Your task to perform on an android device: Add "macbook pro 15 inch" to the cart on costco Image 0: 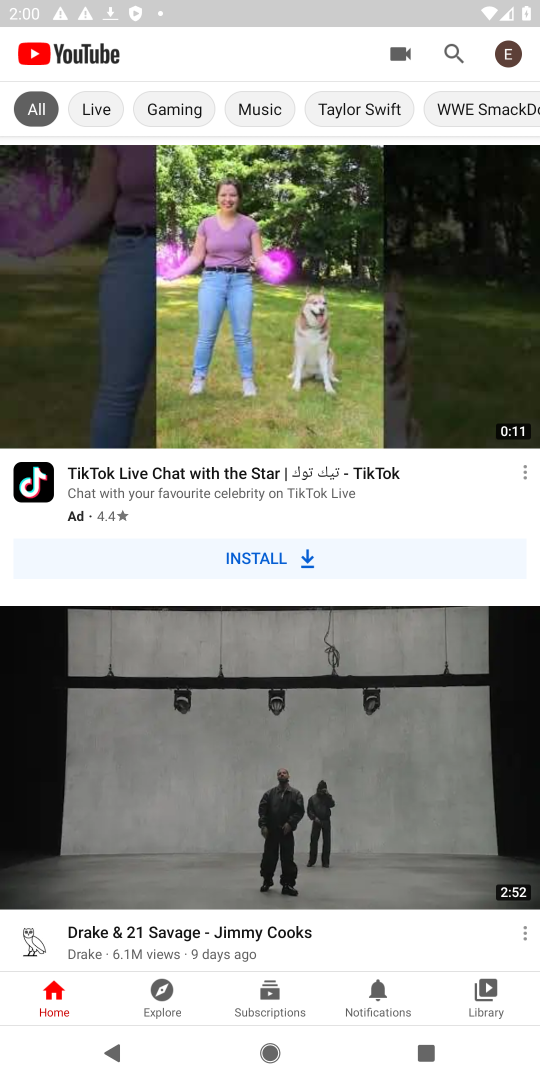
Step 0: press home button
Your task to perform on an android device: Add "macbook pro 15 inch" to the cart on costco Image 1: 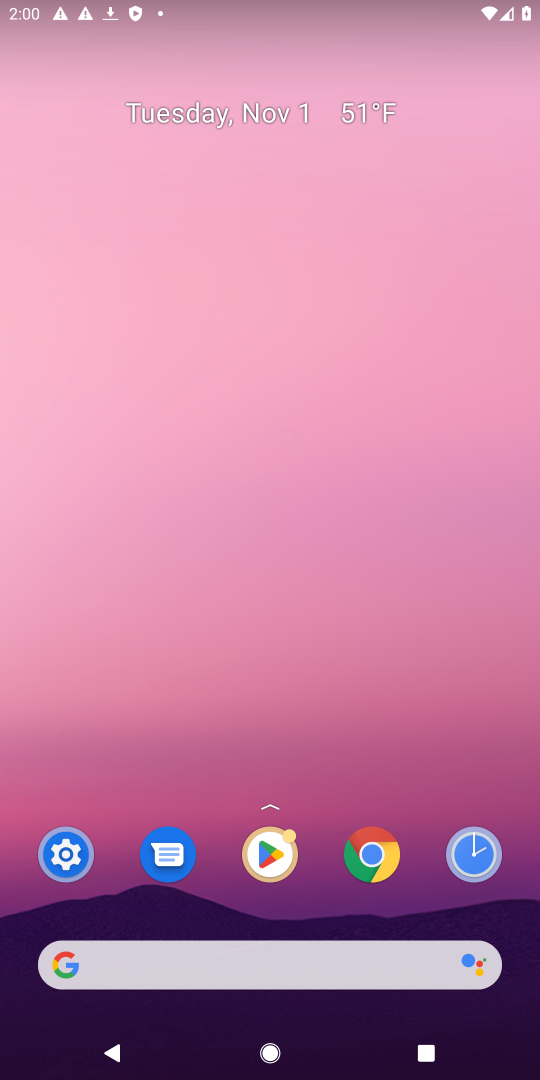
Step 1: click (253, 960)
Your task to perform on an android device: Add "macbook pro 15 inch" to the cart on costco Image 2: 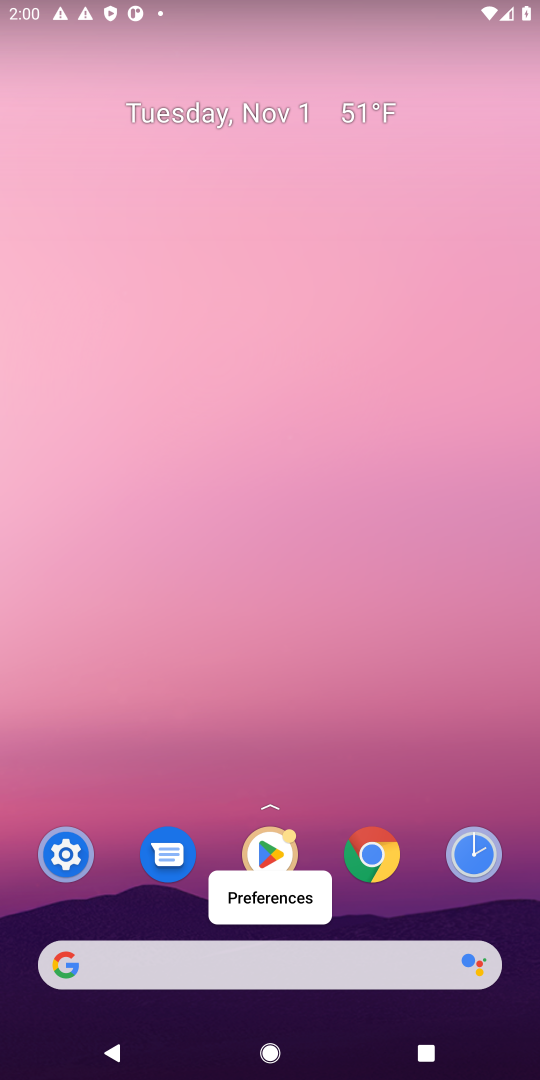
Step 2: click (158, 967)
Your task to perform on an android device: Add "macbook pro 15 inch" to the cart on costco Image 3: 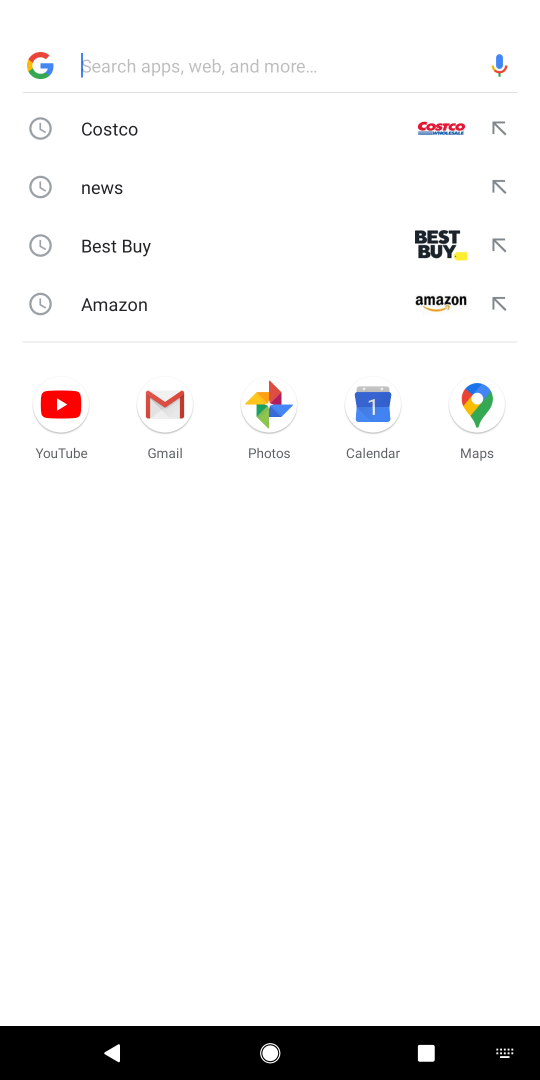
Step 3: click (115, 131)
Your task to perform on an android device: Add "macbook pro 15 inch" to the cart on costco Image 4: 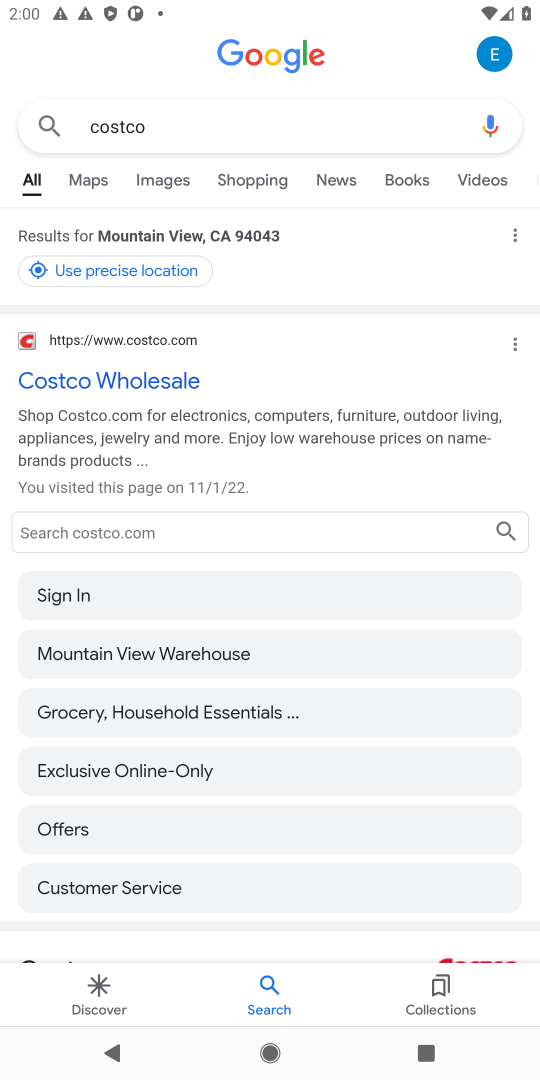
Step 4: click (152, 378)
Your task to perform on an android device: Add "macbook pro 15 inch" to the cart on costco Image 5: 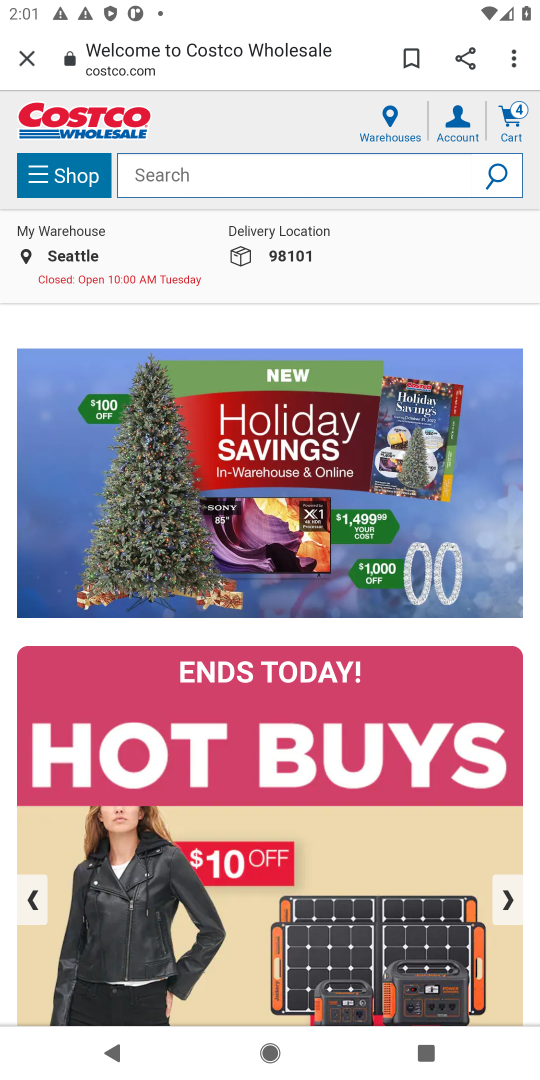
Step 5: click (205, 166)
Your task to perform on an android device: Add "macbook pro 15 inch" to the cart on costco Image 6: 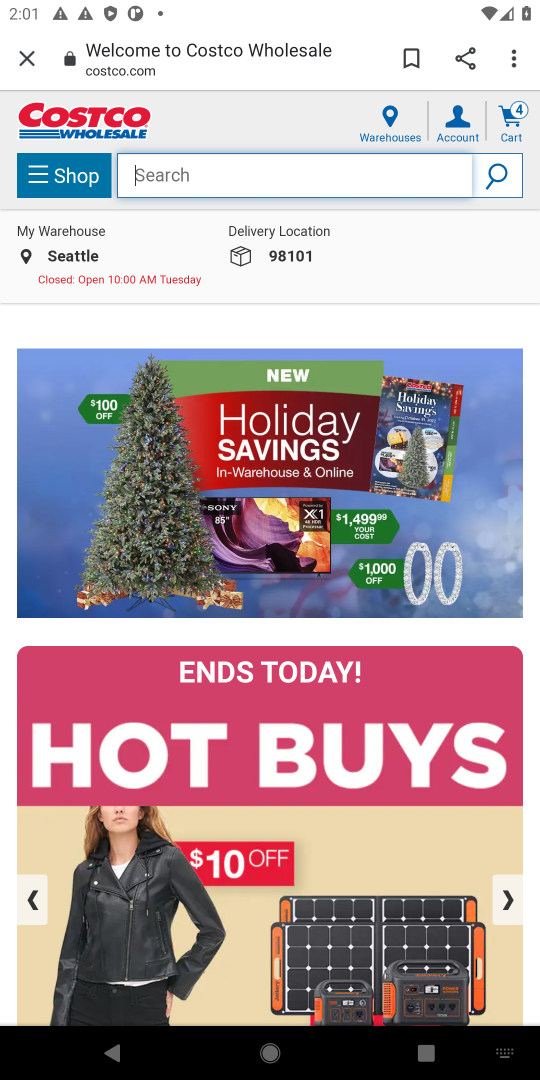
Step 6: type "macbook pro 15 inch"
Your task to perform on an android device: Add "macbook pro 15 inch" to the cart on costco Image 7: 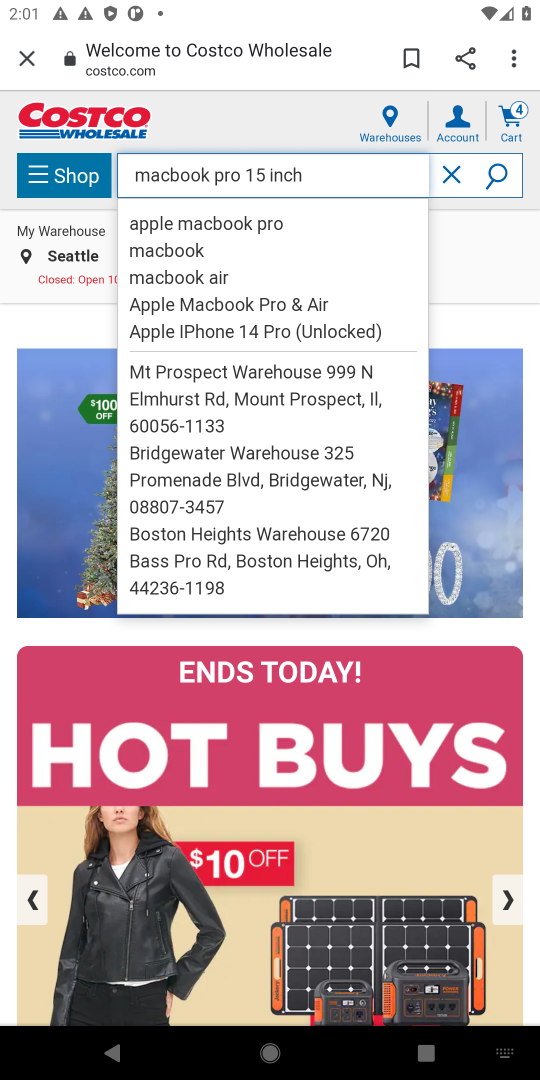
Step 7: click (493, 175)
Your task to perform on an android device: Add "macbook pro 15 inch" to the cart on costco Image 8: 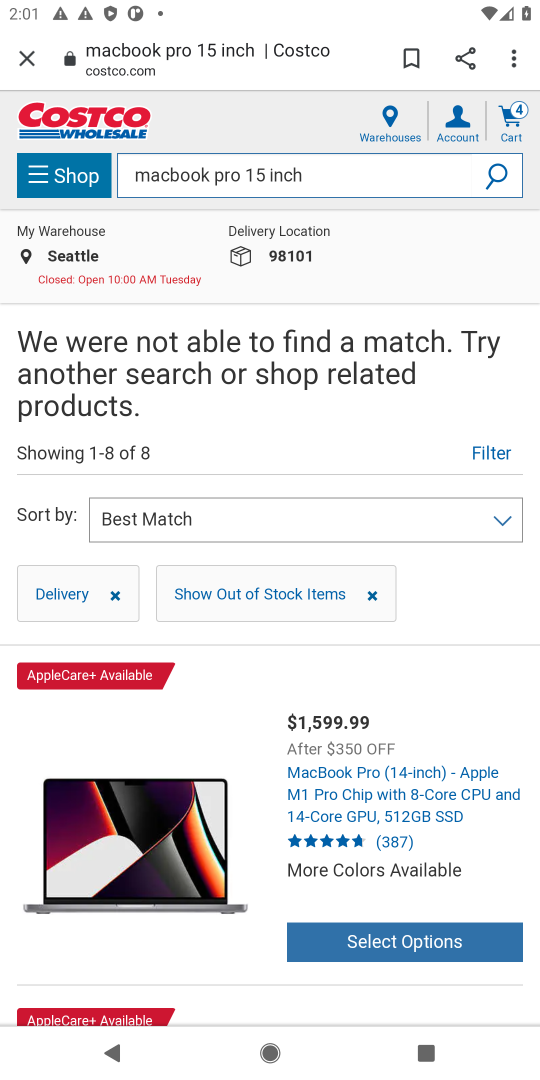
Step 8: click (349, 769)
Your task to perform on an android device: Add "macbook pro 15 inch" to the cart on costco Image 9: 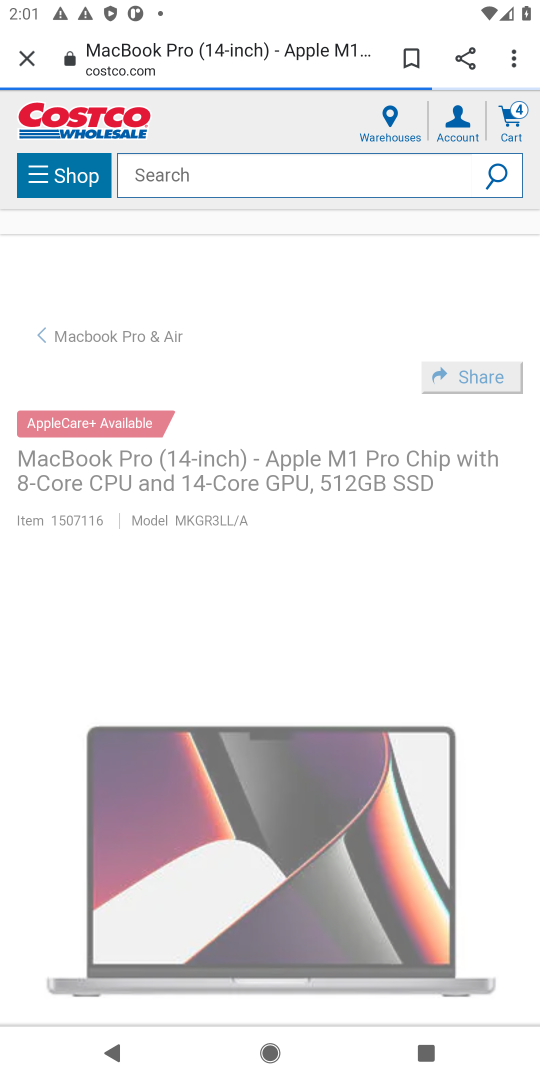
Step 9: drag from (229, 541) to (229, 255)
Your task to perform on an android device: Add "macbook pro 15 inch" to the cart on costco Image 10: 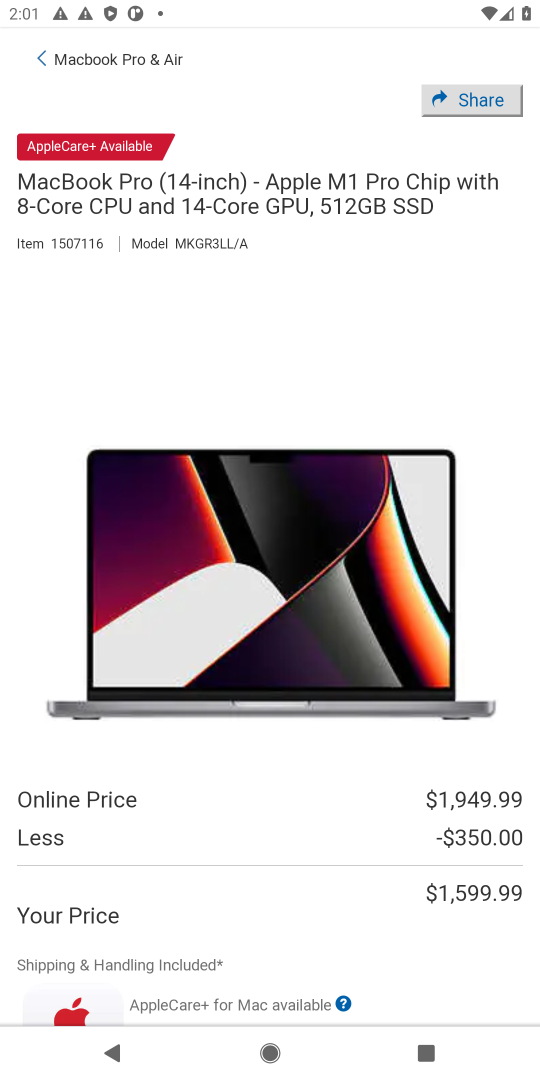
Step 10: drag from (258, 807) to (262, 332)
Your task to perform on an android device: Add "macbook pro 15 inch" to the cart on costco Image 11: 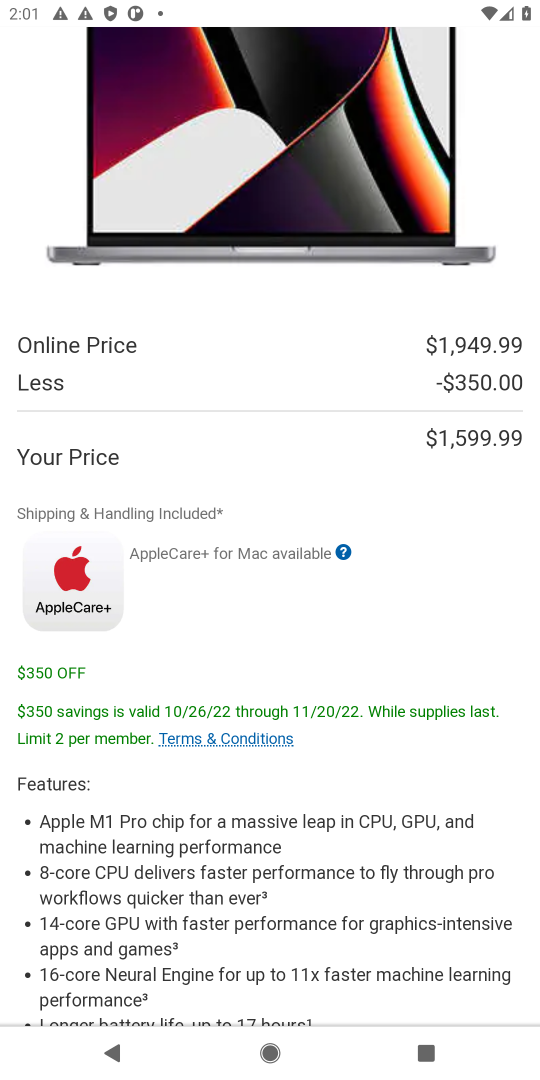
Step 11: drag from (265, 624) to (259, 297)
Your task to perform on an android device: Add "macbook pro 15 inch" to the cart on costco Image 12: 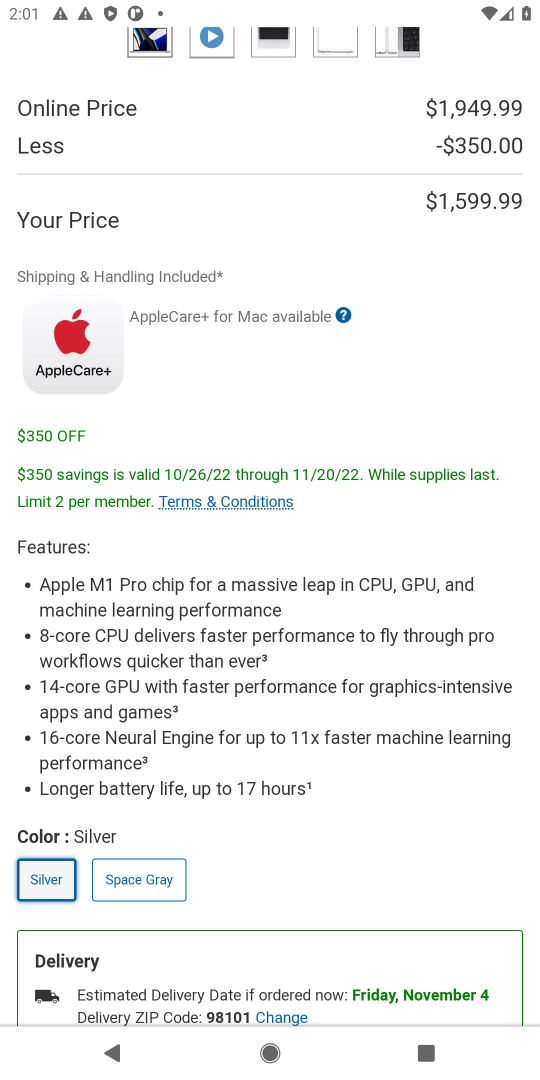
Step 12: drag from (253, 818) to (249, 279)
Your task to perform on an android device: Add "macbook pro 15 inch" to the cart on costco Image 13: 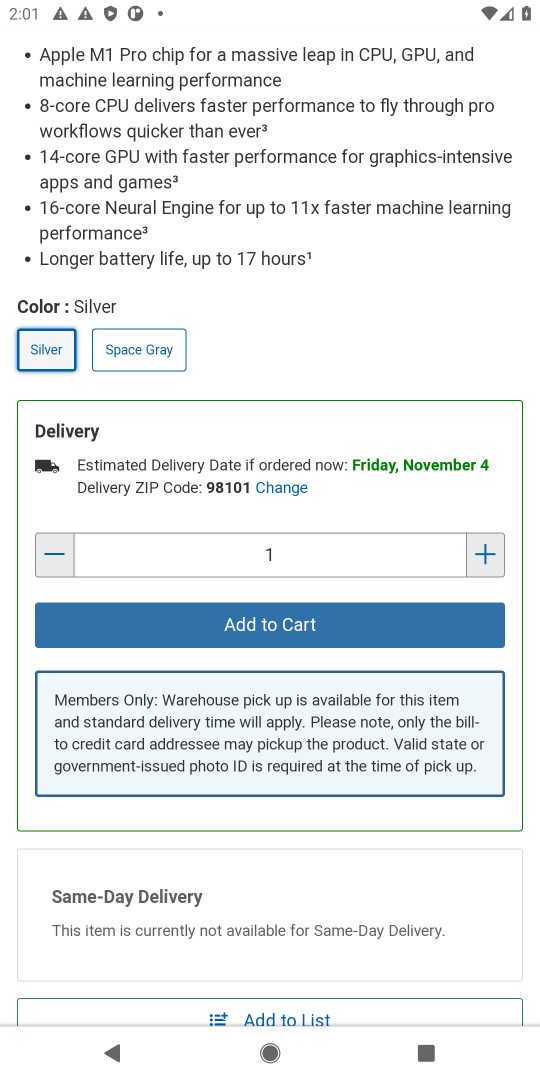
Step 13: click (265, 626)
Your task to perform on an android device: Add "macbook pro 15 inch" to the cart on costco Image 14: 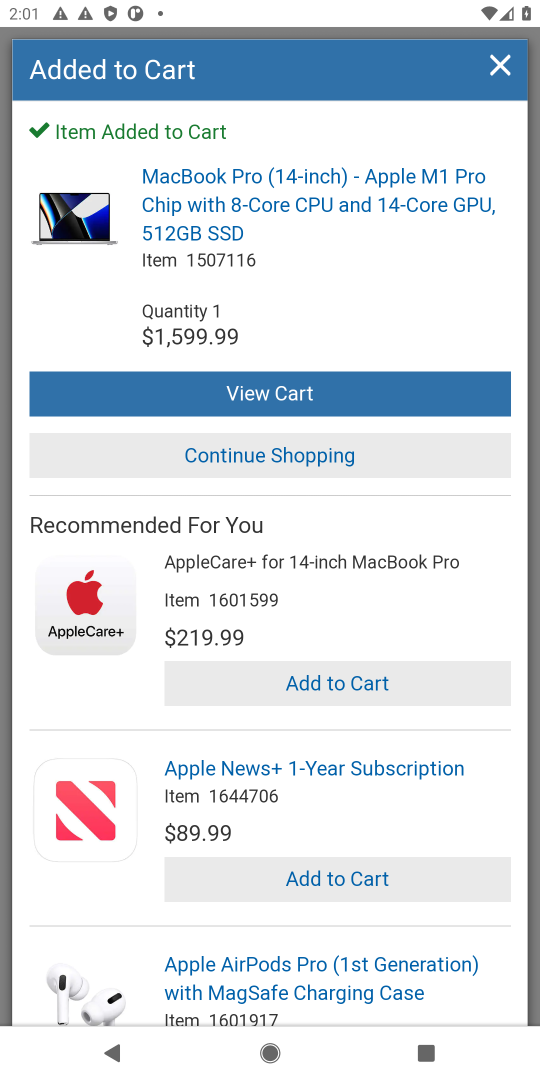
Step 14: task complete